Your task to perform on an android device: Go to notification settings Image 0: 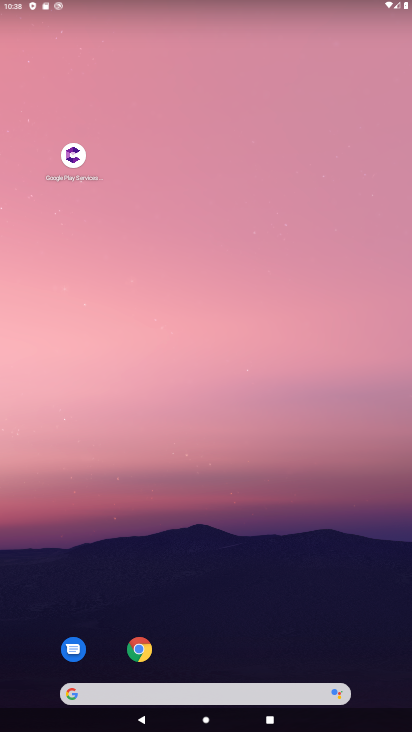
Step 0: drag from (310, 625) to (220, 81)
Your task to perform on an android device: Go to notification settings Image 1: 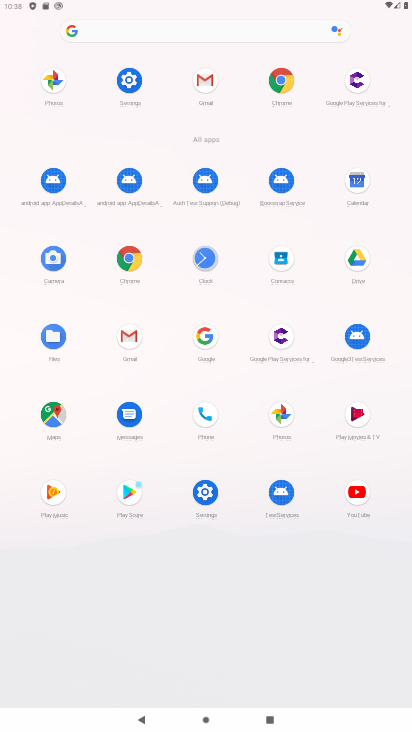
Step 1: click (127, 80)
Your task to perform on an android device: Go to notification settings Image 2: 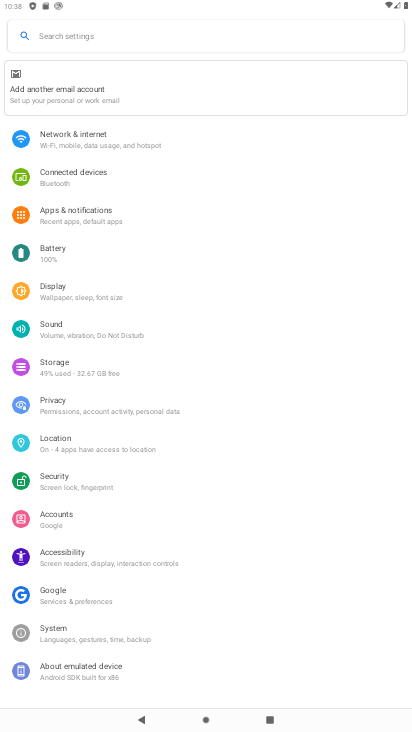
Step 2: click (124, 222)
Your task to perform on an android device: Go to notification settings Image 3: 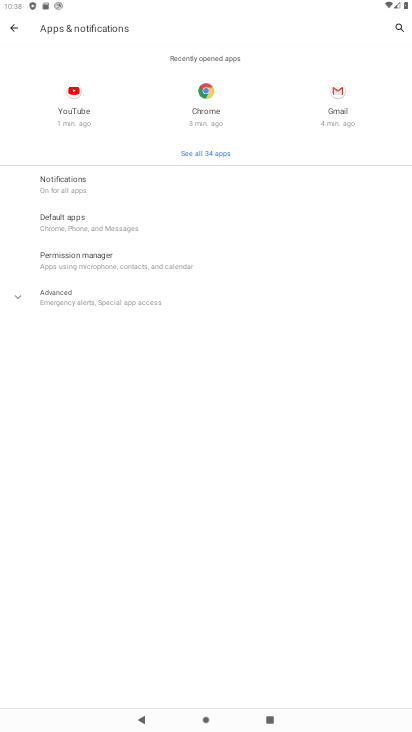
Step 3: click (111, 182)
Your task to perform on an android device: Go to notification settings Image 4: 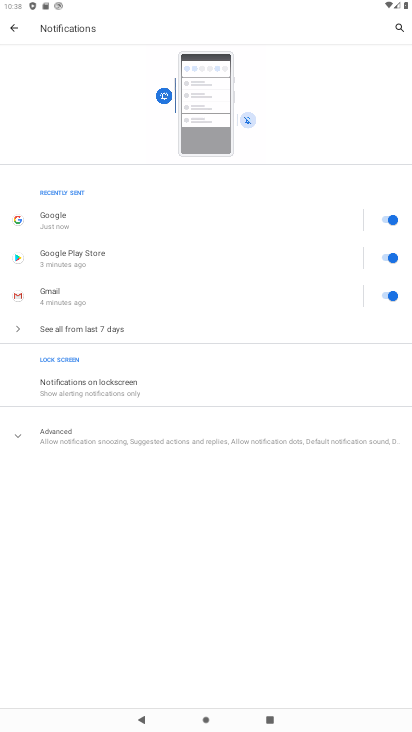
Step 4: task complete